Your task to perform on an android device: Open calendar and show me the second week of next month Image 0: 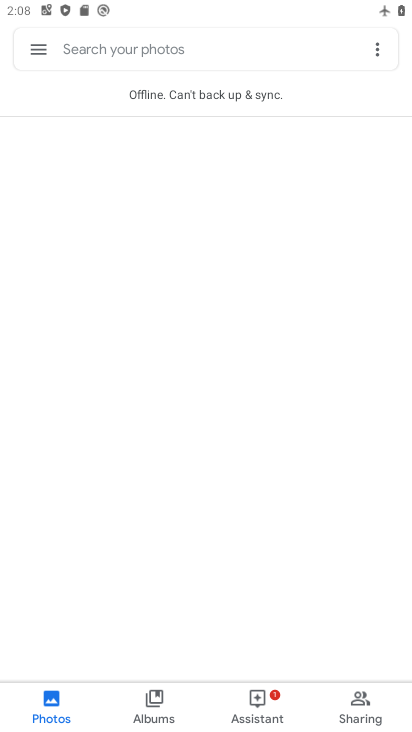
Step 0: press home button
Your task to perform on an android device: Open calendar and show me the second week of next month Image 1: 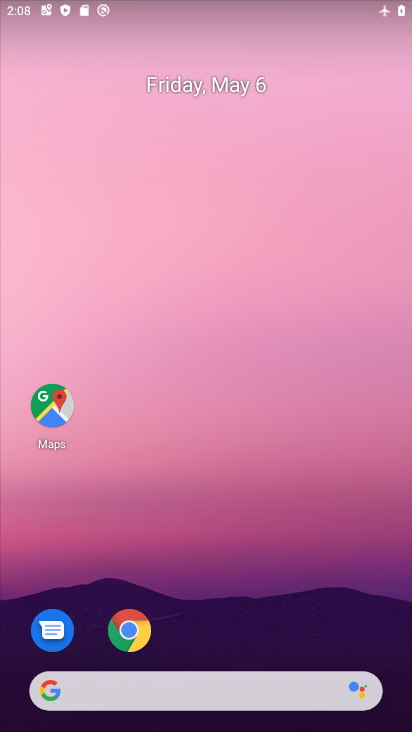
Step 1: drag from (170, 674) to (127, 258)
Your task to perform on an android device: Open calendar and show me the second week of next month Image 2: 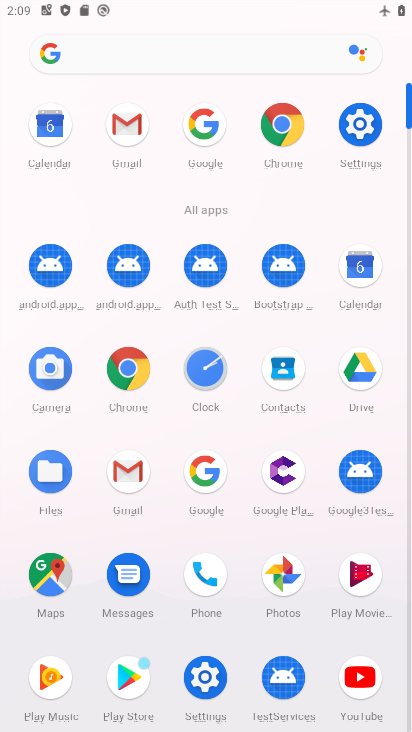
Step 2: click (369, 273)
Your task to perform on an android device: Open calendar and show me the second week of next month Image 3: 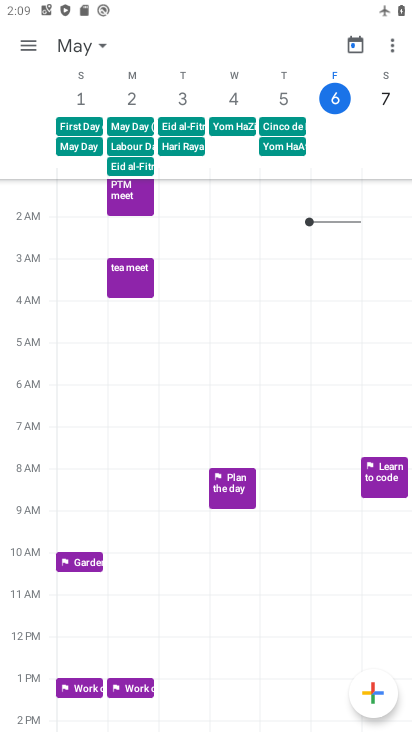
Step 3: task complete